Your task to perform on an android device: check out phone information Image 0: 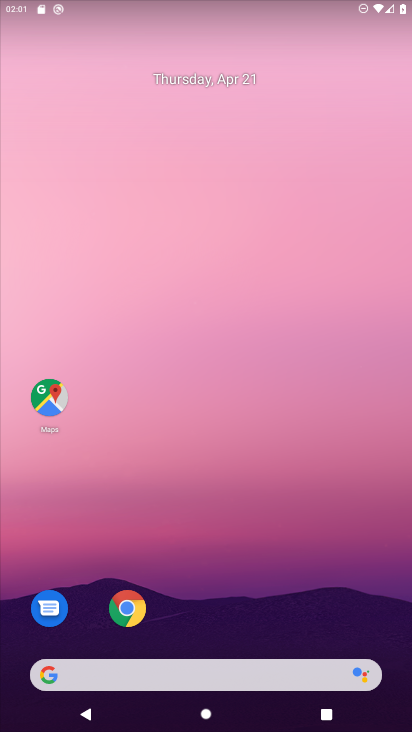
Step 0: drag from (221, 589) to (238, 237)
Your task to perform on an android device: check out phone information Image 1: 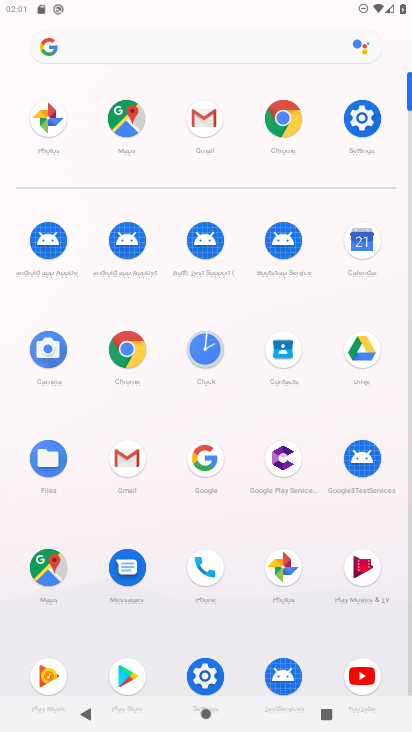
Step 1: click (368, 114)
Your task to perform on an android device: check out phone information Image 2: 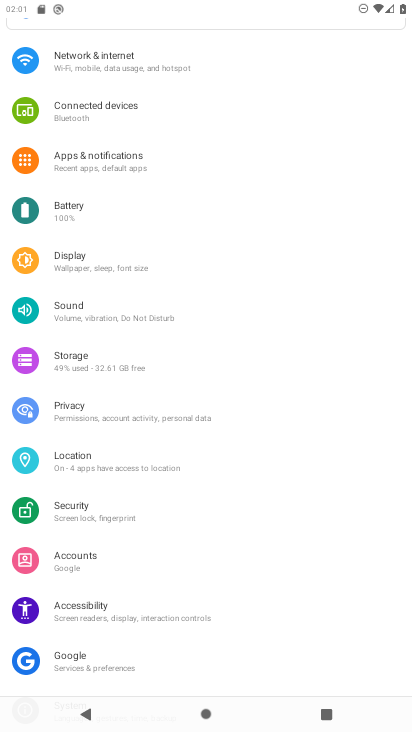
Step 2: drag from (231, 501) to (308, 287)
Your task to perform on an android device: check out phone information Image 3: 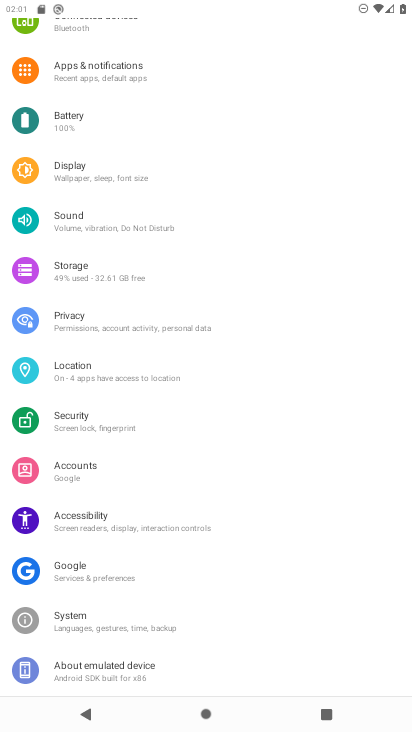
Step 3: click (109, 669)
Your task to perform on an android device: check out phone information Image 4: 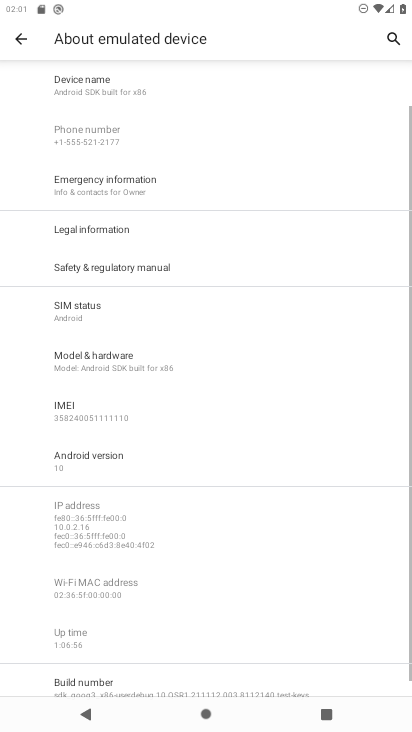
Step 4: task complete